Your task to perform on an android device: delete location history Image 0: 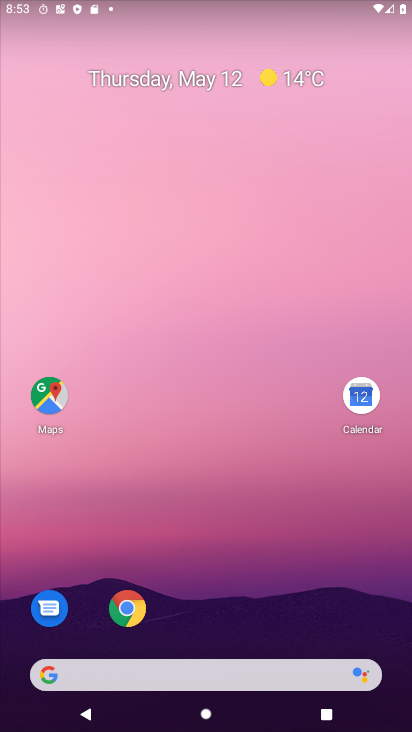
Step 0: drag from (179, 552) to (142, 392)
Your task to perform on an android device: delete location history Image 1: 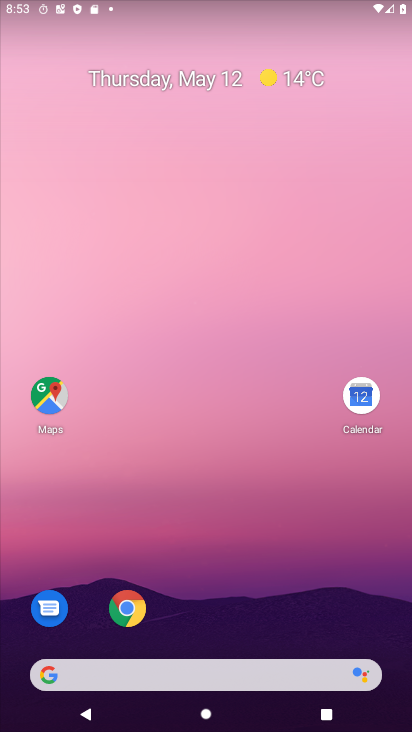
Step 1: drag from (285, 503) to (240, 238)
Your task to perform on an android device: delete location history Image 2: 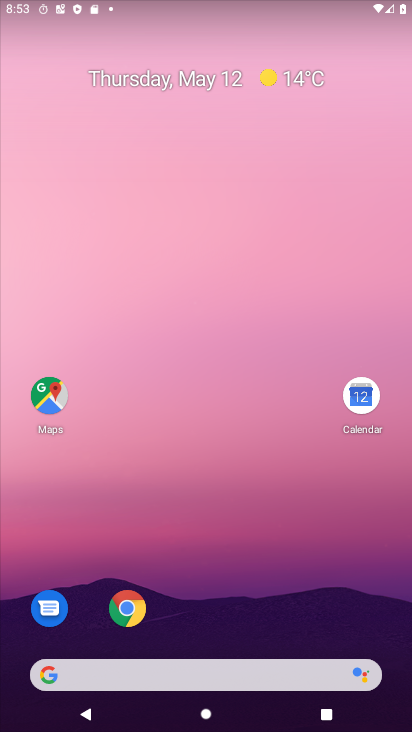
Step 2: drag from (256, 547) to (243, 131)
Your task to perform on an android device: delete location history Image 3: 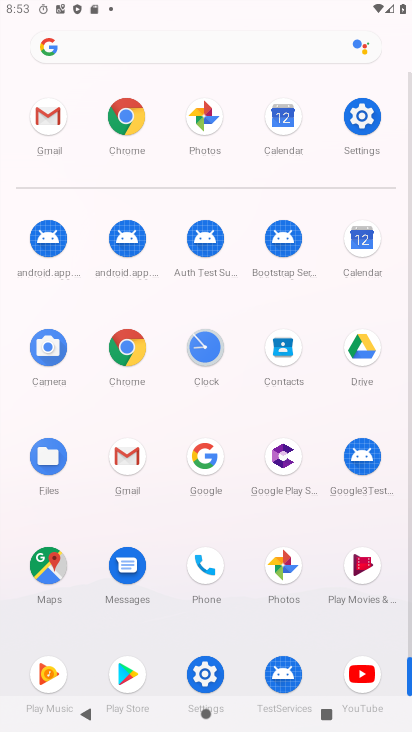
Step 3: click (364, 115)
Your task to perform on an android device: delete location history Image 4: 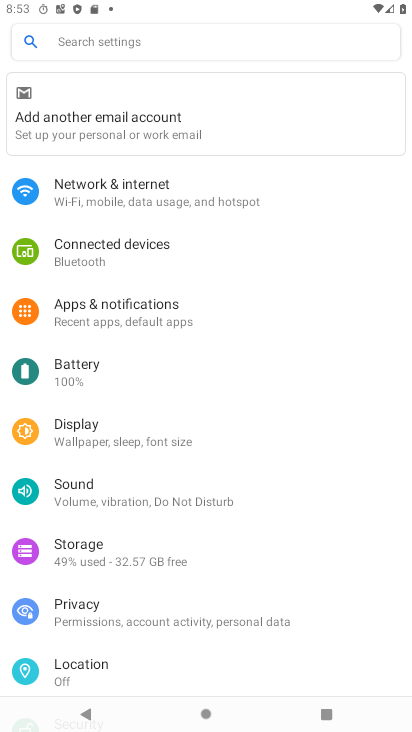
Step 4: click (176, 660)
Your task to perform on an android device: delete location history Image 5: 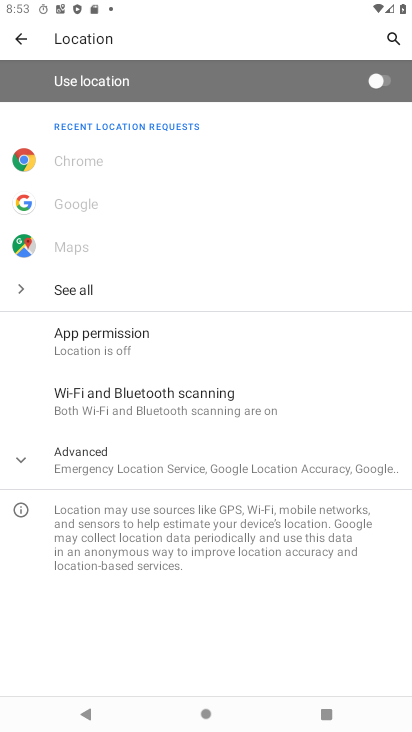
Step 5: drag from (238, 540) to (223, 213)
Your task to perform on an android device: delete location history Image 6: 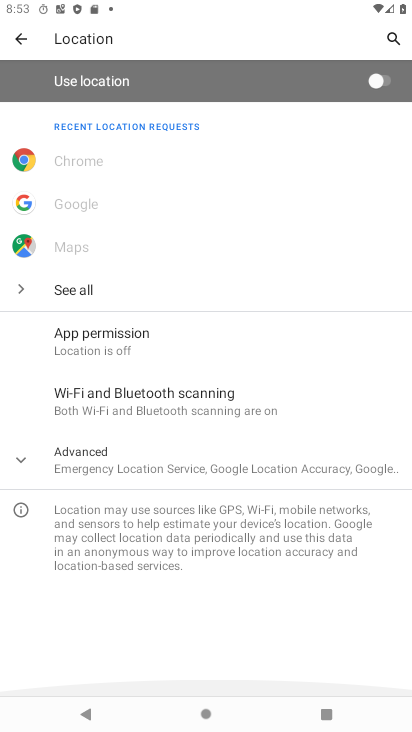
Step 6: drag from (274, 282) to (273, 453)
Your task to perform on an android device: delete location history Image 7: 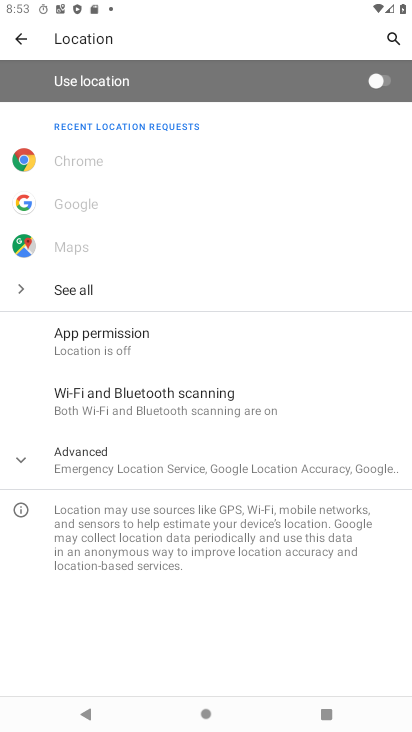
Step 7: click (244, 443)
Your task to perform on an android device: delete location history Image 8: 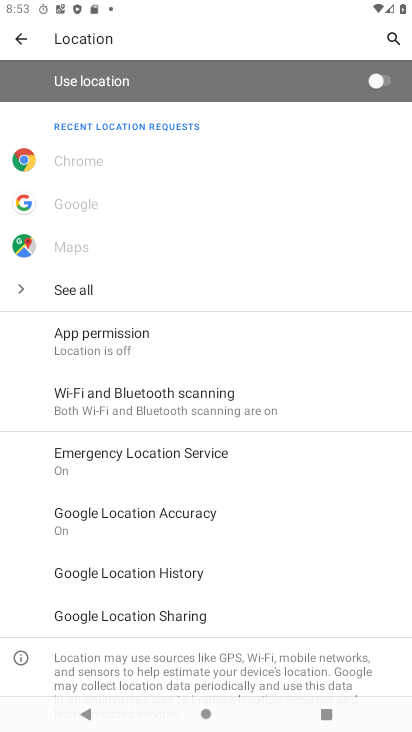
Step 8: click (201, 577)
Your task to perform on an android device: delete location history Image 9: 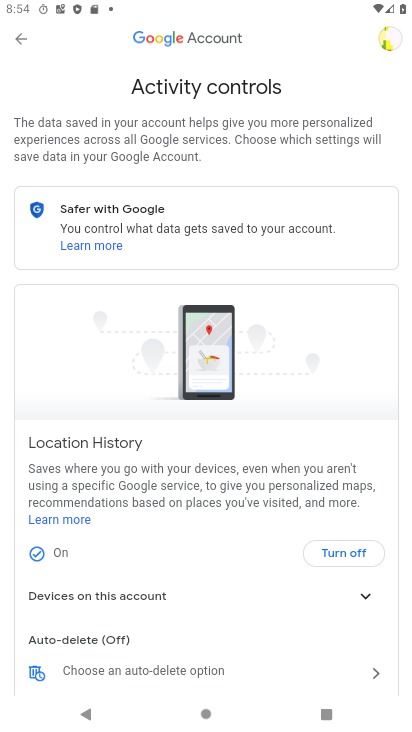
Step 9: drag from (248, 623) to (279, 201)
Your task to perform on an android device: delete location history Image 10: 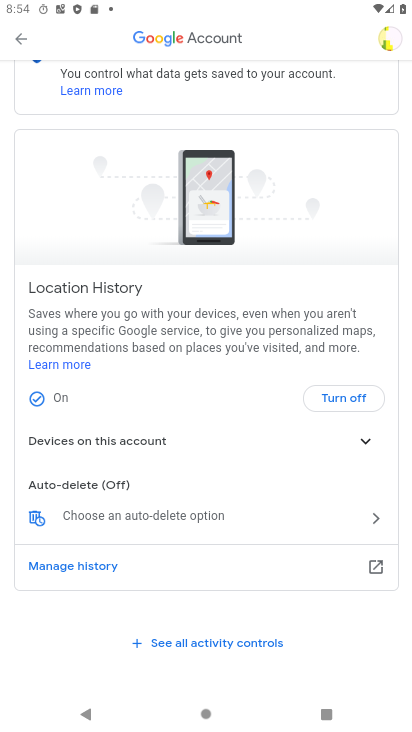
Step 10: click (182, 564)
Your task to perform on an android device: delete location history Image 11: 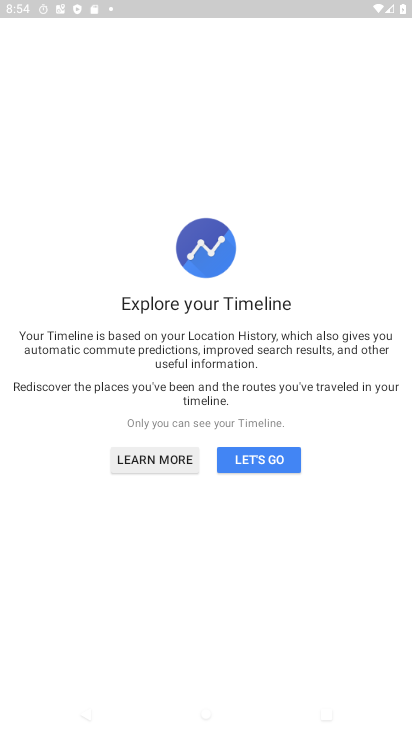
Step 11: task complete